Your task to perform on an android device: allow notifications from all sites in the chrome app Image 0: 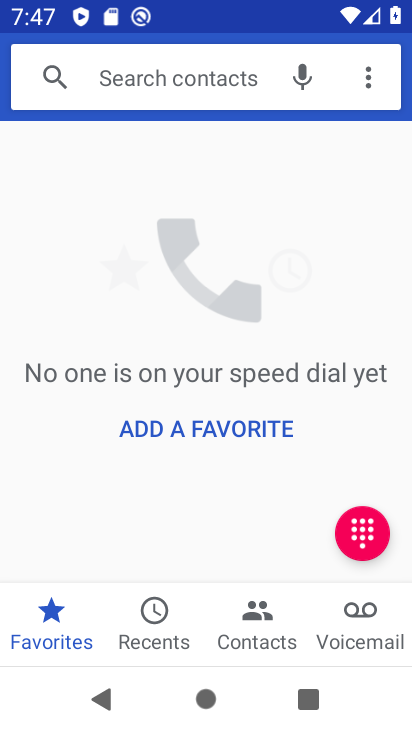
Step 0: press home button
Your task to perform on an android device: allow notifications from all sites in the chrome app Image 1: 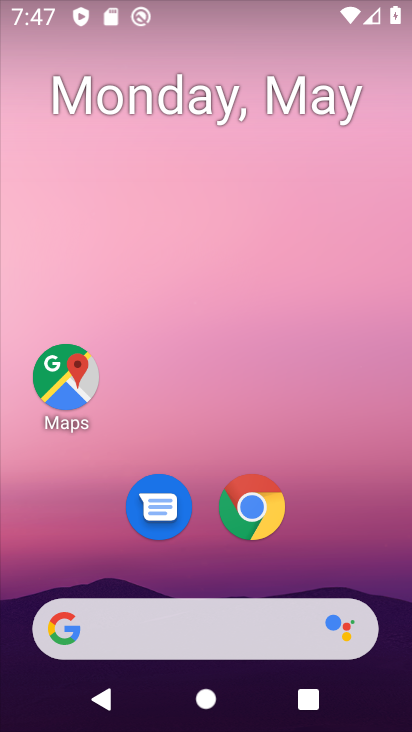
Step 1: click (257, 515)
Your task to perform on an android device: allow notifications from all sites in the chrome app Image 2: 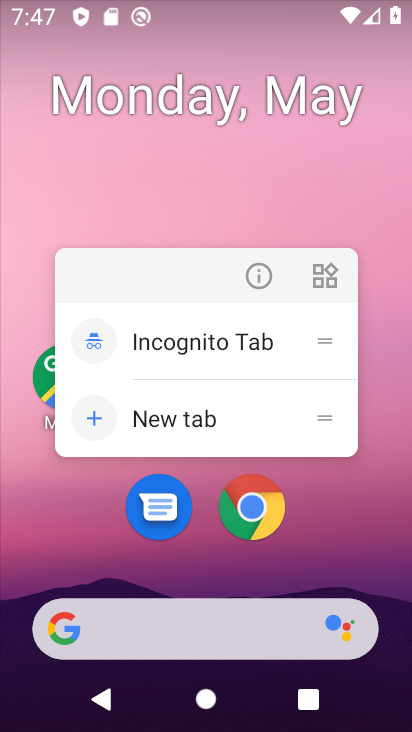
Step 2: click (258, 510)
Your task to perform on an android device: allow notifications from all sites in the chrome app Image 3: 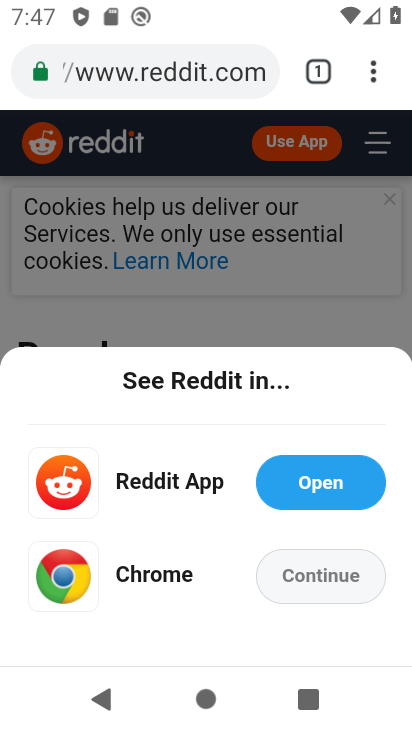
Step 3: drag from (376, 67) to (230, 480)
Your task to perform on an android device: allow notifications from all sites in the chrome app Image 4: 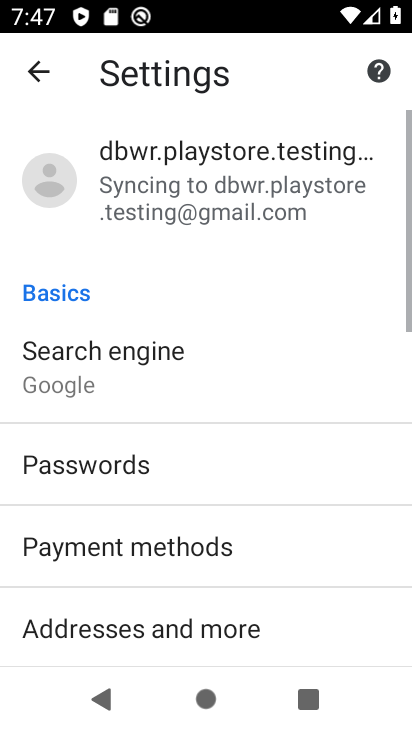
Step 4: drag from (230, 468) to (266, 93)
Your task to perform on an android device: allow notifications from all sites in the chrome app Image 5: 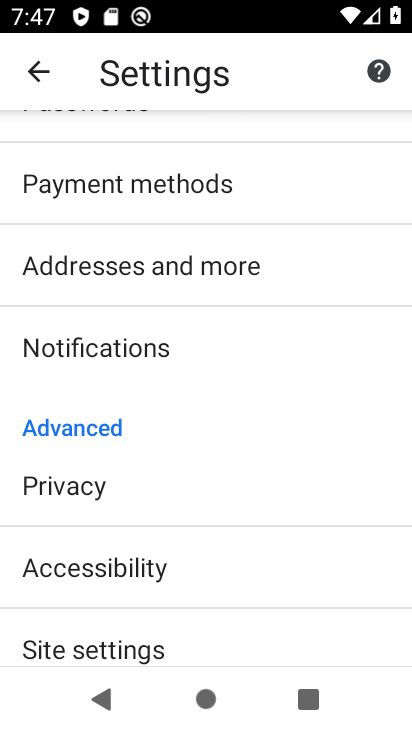
Step 5: click (99, 356)
Your task to perform on an android device: allow notifications from all sites in the chrome app Image 6: 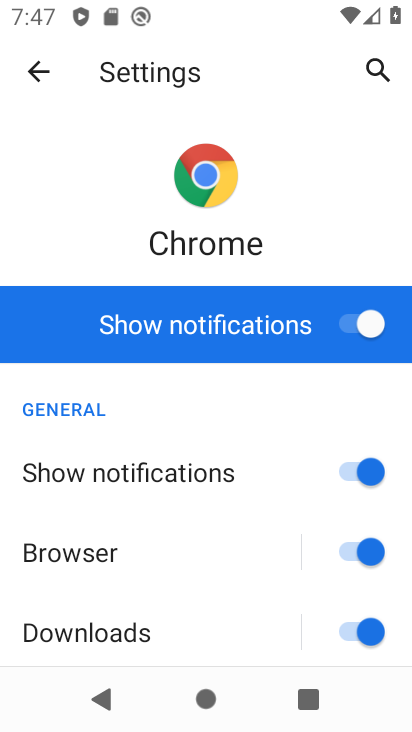
Step 6: drag from (273, 614) to (257, 180)
Your task to perform on an android device: allow notifications from all sites in the chrome app Image 7: 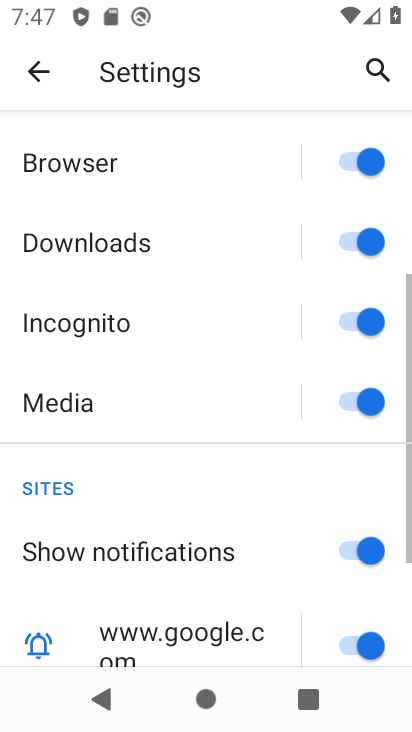
Step 7: click (259, 175)
Your task to perform on an android device: allow notifications from all sites in the chrome app Image 8: 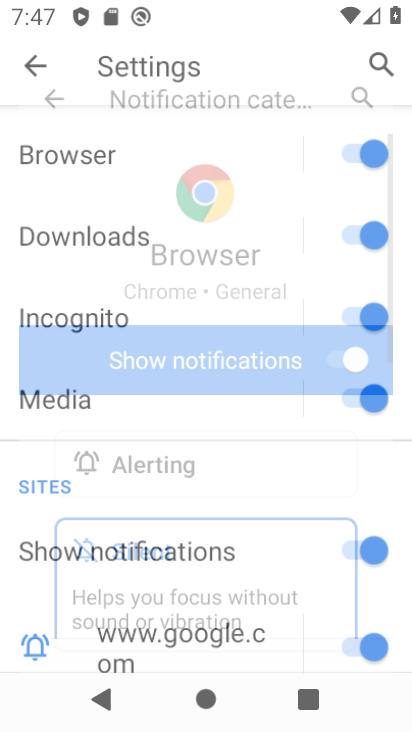
Step 8: drag from (241, 471) to (266, 203)
Your task to perform on an android device: allow notifications from all sites in the chrome app Image 9: 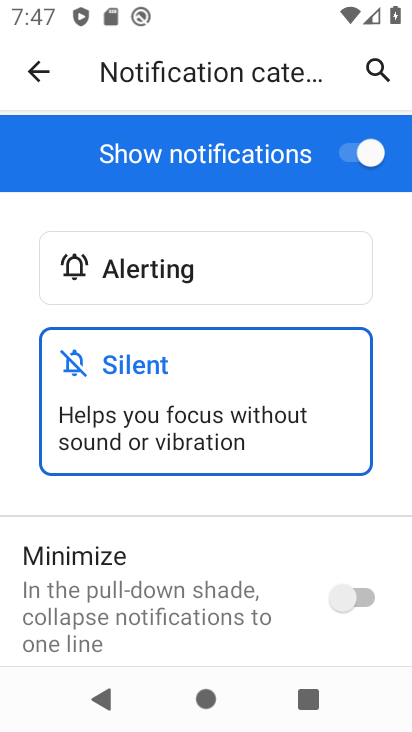
Step 9: click (32, 63)
Your task to perform on an android device: allow notifications from all sites in the chrome app Image 10: 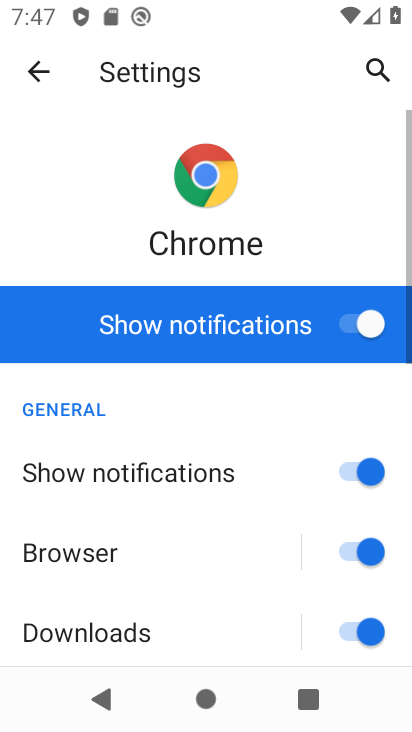
Step 10: task complete